Your task to perform on an android device: turn off sleep mode Image 0: 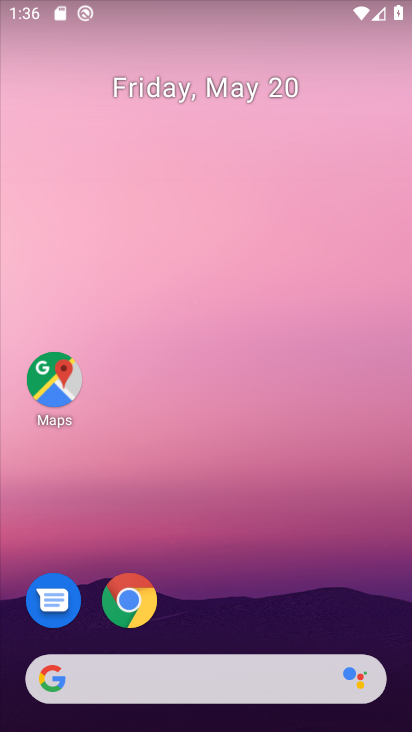
Step 0: drag from (167, 210) to (157, 56)
Your task to perform on an android device: turn off sleep mode Image 1: 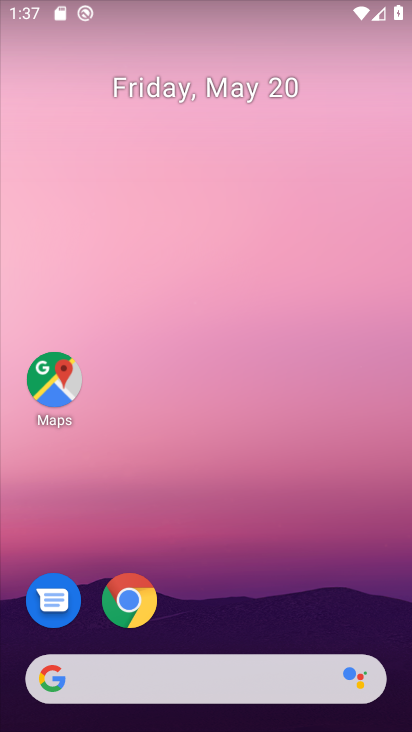
Step 1: drag from (251, 576) to (187, 56)
Your task to perform on an android device: turn off sleep mode Image 2: 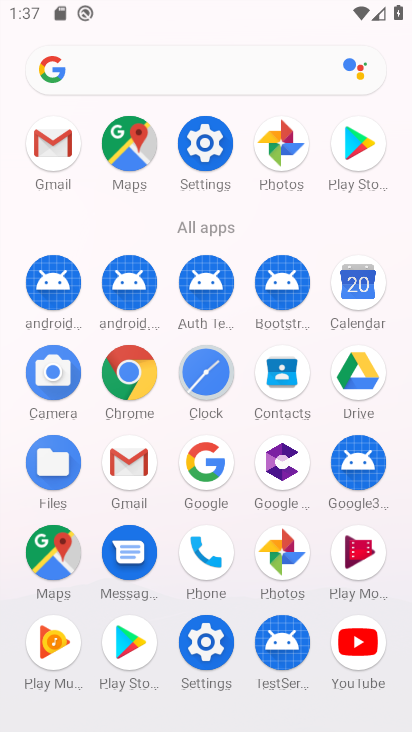
Step 2: click (204, 147)
Your task to perform on an android device: turn off sleep mode Image 3: 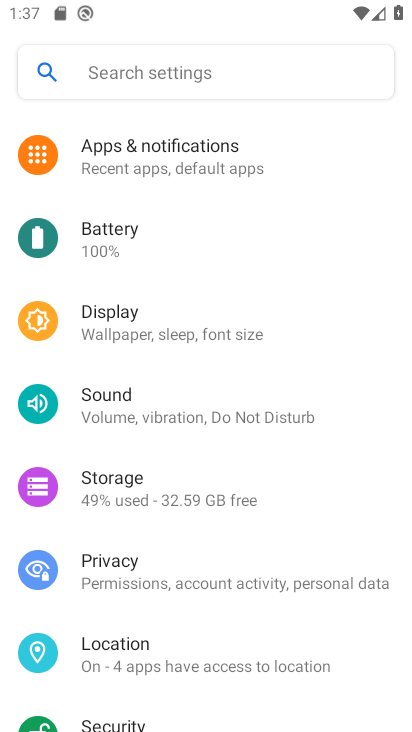
Step 3: click (171, 325)
Your task to perform on an android device: turn off sleep mode Image 4: 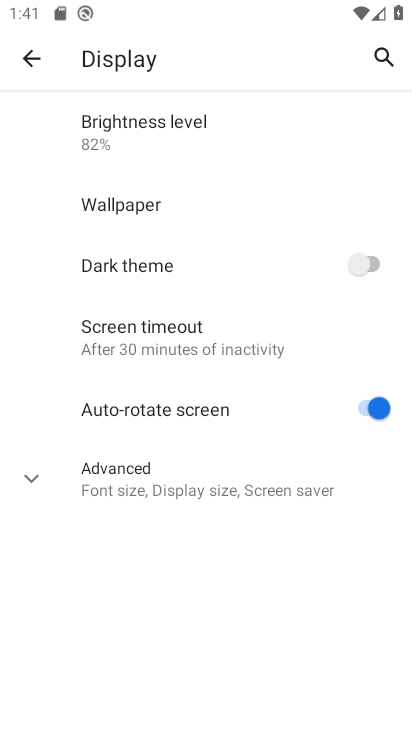
Step 4: task complete